Your task to perform on an android device: Find coffee shops on Maps Image 0: 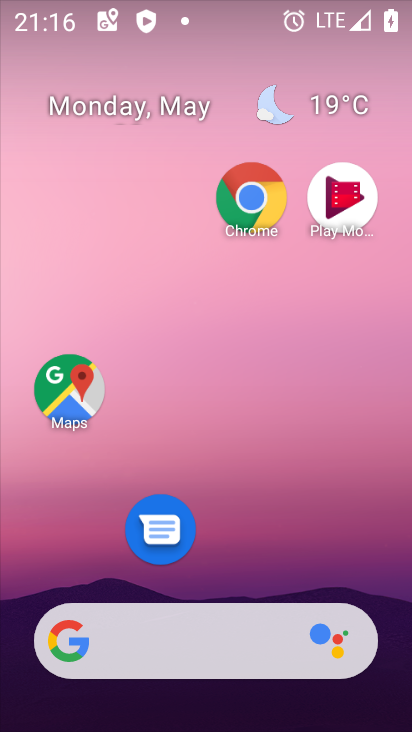
Step 0: click (59, 396)
Your task to perform on an android device: Find coffee shops on Maps Image 1: 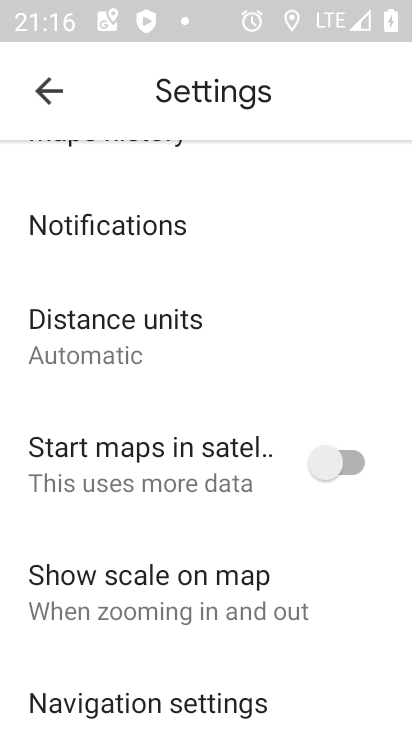
Step 1: click (52, 99)
Your task to perform on an android device: Find coffee shops on Maps Image 2: 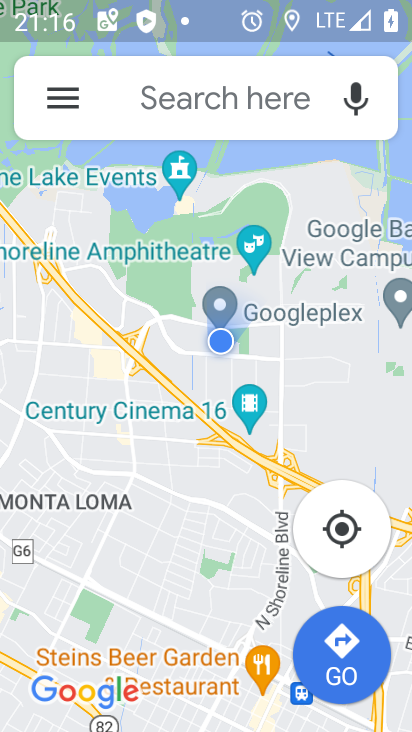
Step 2: click (215, 115)
Your task to perform on an android device: Find coffee shops on Maps Image 3: 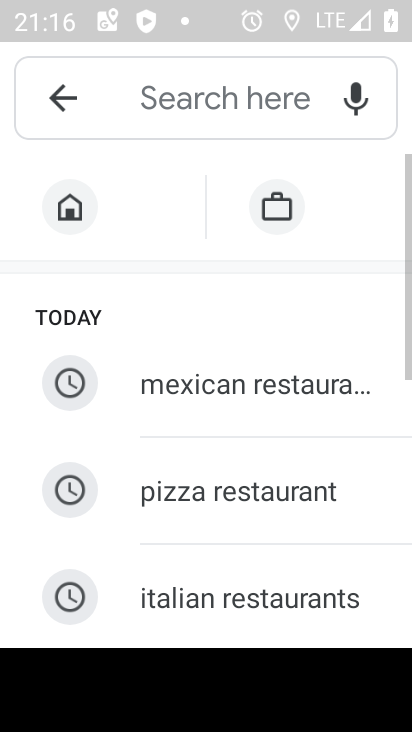
Step 3: drag from (214, 581) to (235, 291)
Your task to perform on an android device: Find coffee shops on Maps Image 4: 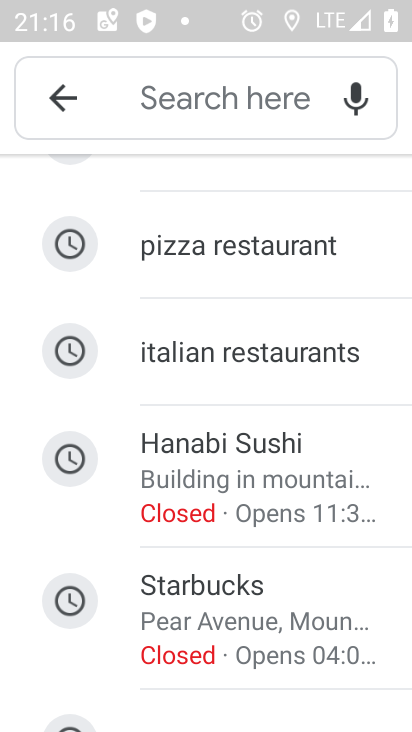
Step 4: drag from (215, 663) to (242, 372)
Your task to perform on an android device: Find coffee shops on Maps Image 5: 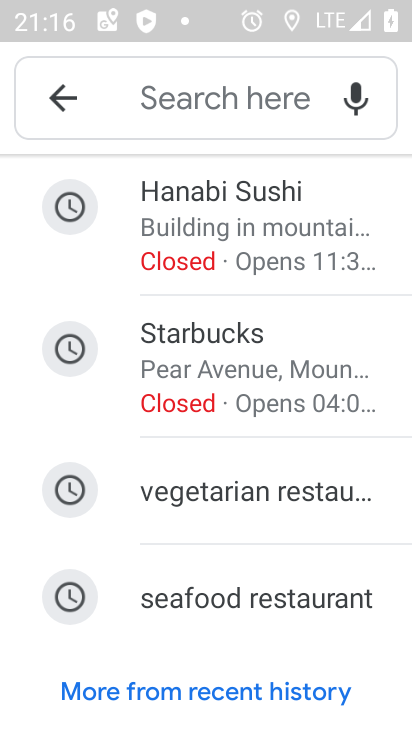
Step 5: click (246, 121)
Your task to perform on an android device: Find coffee shops on Maps Image 6: 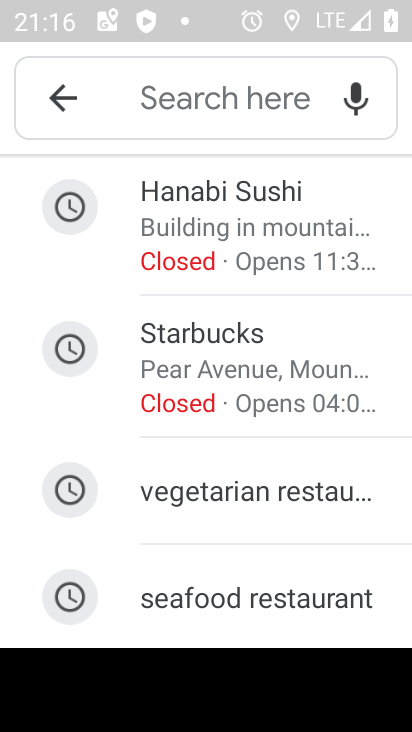
Step 6: type "coffee shops"
Your task to perform on an android device: Find coffee shops on Maps Image 7: 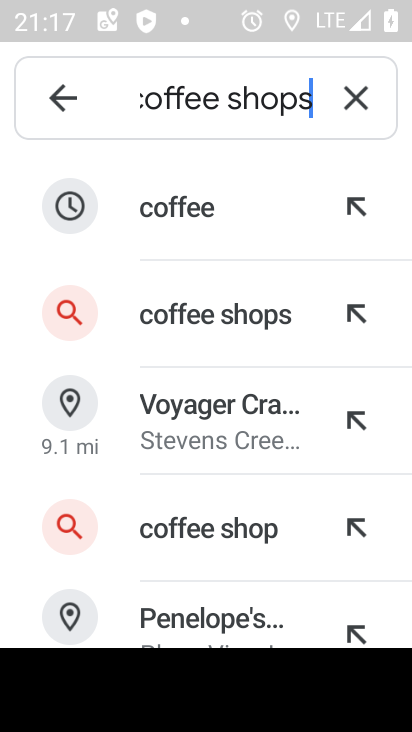
Step 7: click (234, 322)
Your task to perform on an android device: Find coffee shops on Maps Image 8: 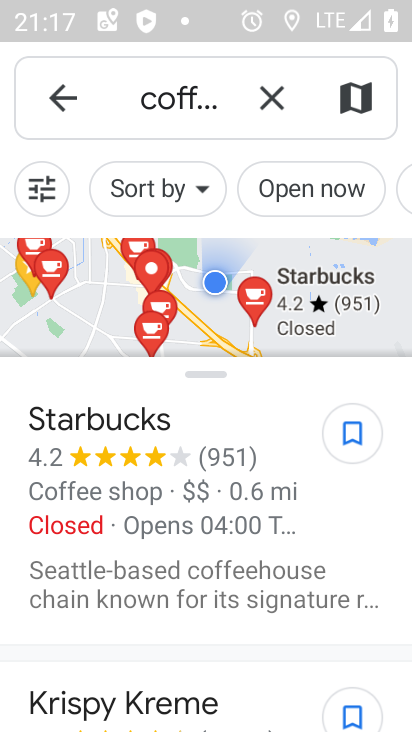
Step 8: task complete